Your task to perform on an android device: open wifi settings Image 0: 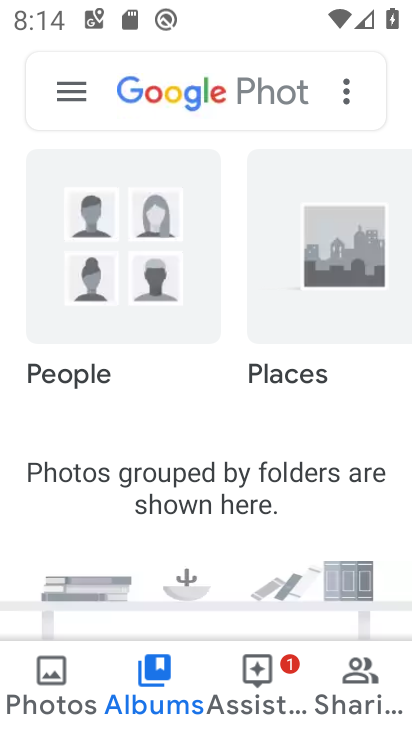
Step 0: drag from (165, 699) to (267, 425)
Your task to perform on an android device: open wifi settings Image 1: 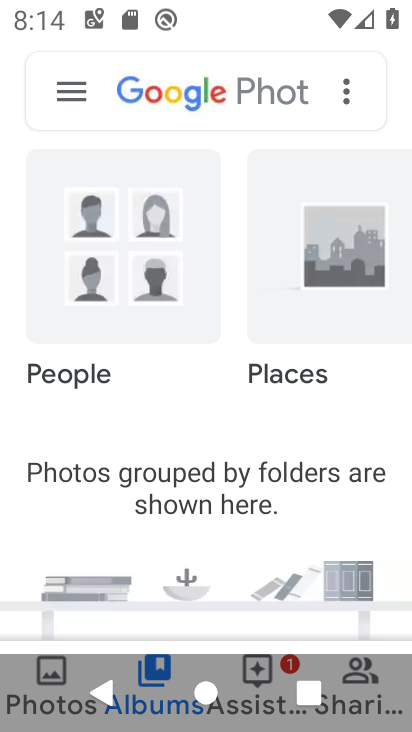
Step 1: press home button
Your task to perform on an android device: open wifi settings Image 2: 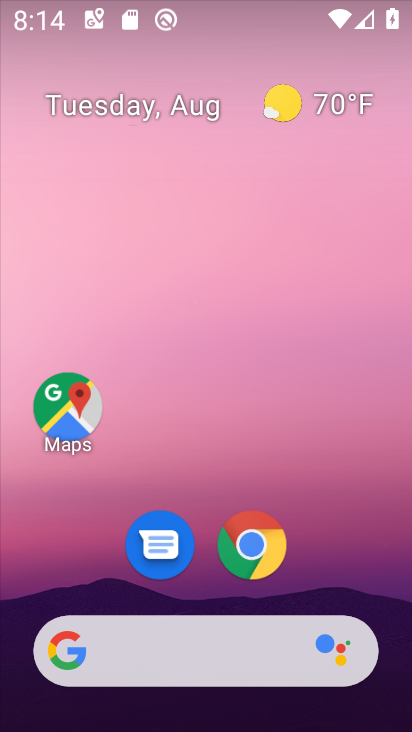
Step 2: drag from (240, 581) to (233, 105)
Your task to perform on an android device: open wifi settings Image 3: 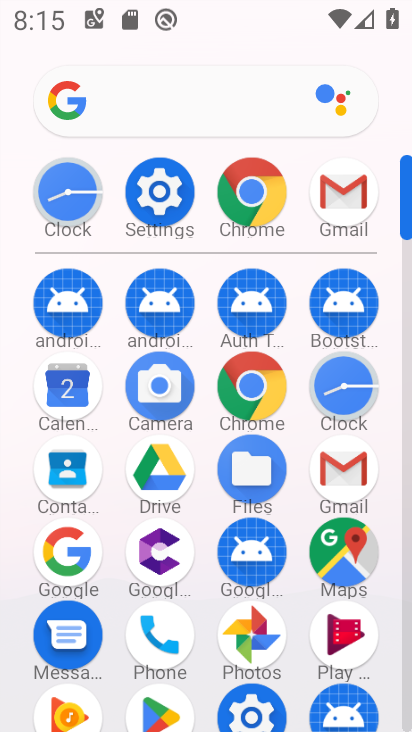
Step 3: click (148, 203)
Your task to perform on an android device: open wifi settings Image 4: 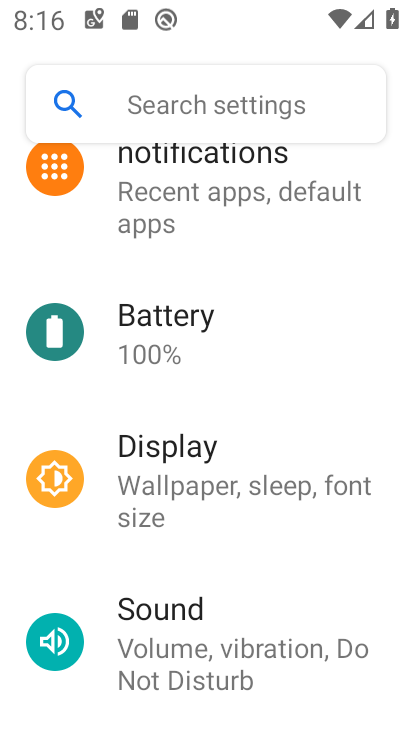
Step 4: drag from (207, 338) to (191, 672)
Your task to perform on an android device: open wifi settings Image 5: 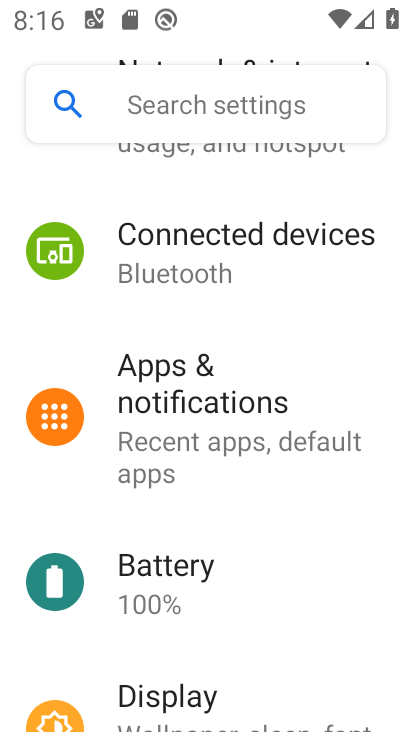
Step 5: drag from (194, 366) to (194, 625)
Your task to perform on an android device: open wifi settings Image 6: 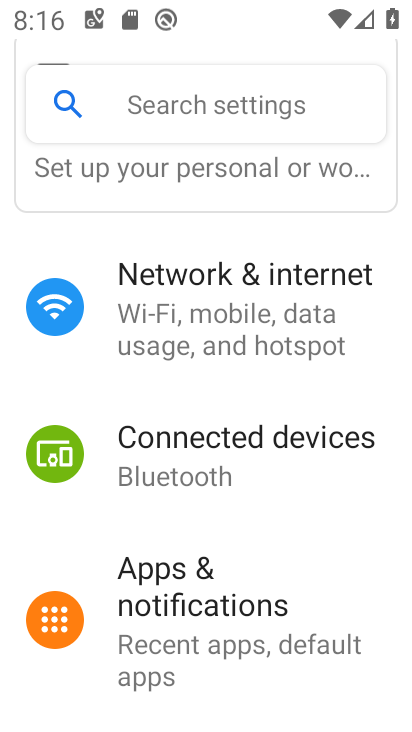
Step 6: click (200, 303)
Your task to perform on an android device: open wifi settings Image 7: 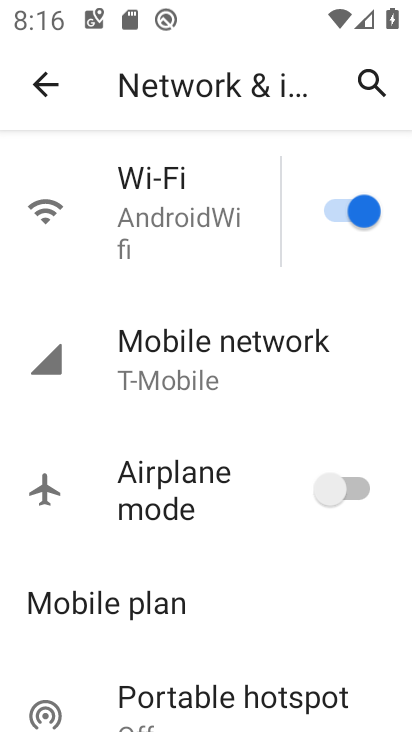
Step 7: click (215, 211)
Your task to perform on an android device: open wifi settings Image 8: 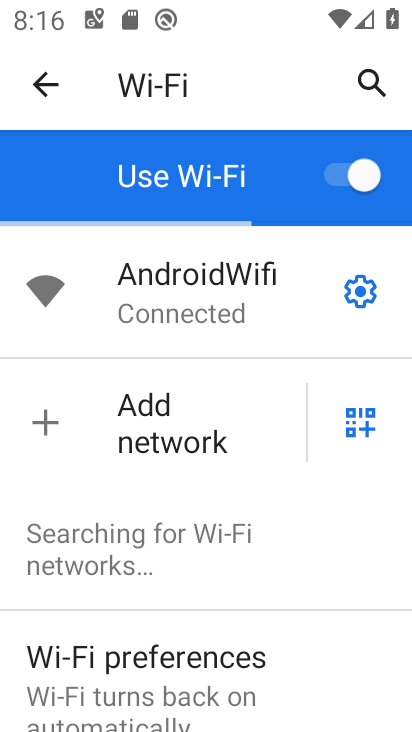
Step 8: task complete